Your task to perform on an android device: Open notification settings Image 0: 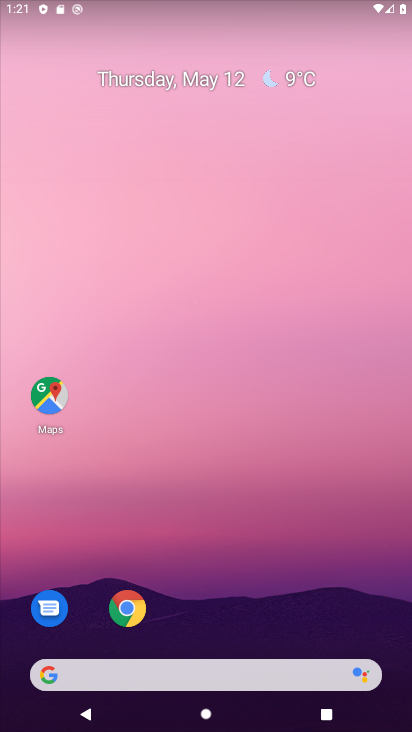
Step 0: drag from (194, 603) to (109, 146)
Your task to perform on an android device: Open notification settings Image 1: 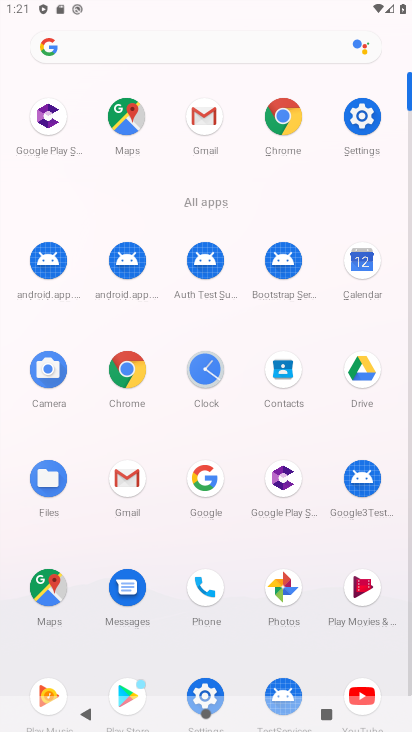
Step 1: click (370, 115)
Your task to perform on an android device: Open notification settings Image 2: 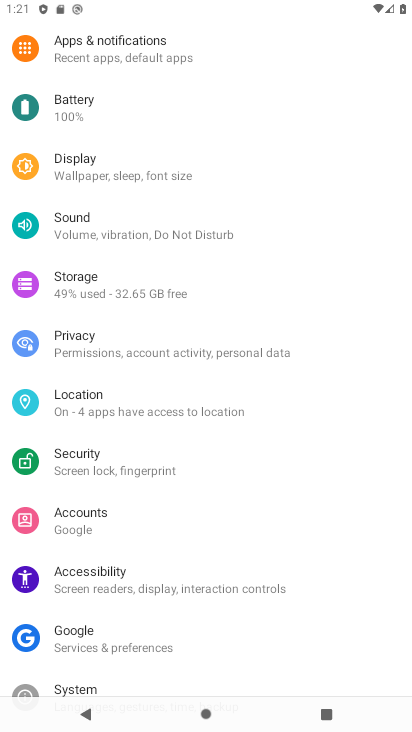
Step 2: click (171, 43)
Your task to perform on an android device: Open notification settings Image 3: 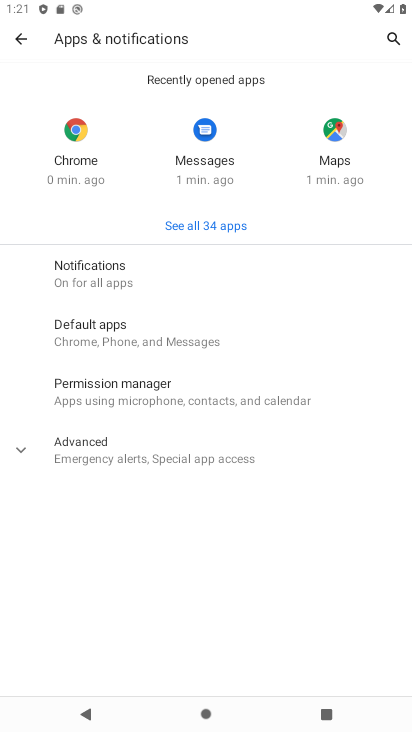
Step 3: click (119, 285)
Your task to perform on an android device: Open notification settings Image 4: 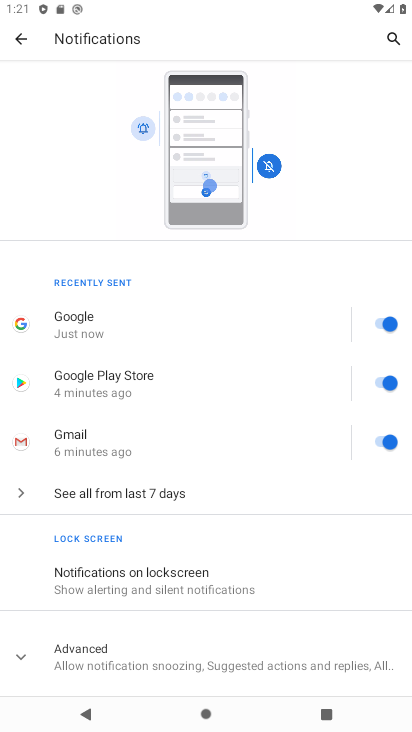
Step 4: click (99, 648)
Your task to perform on an android device: Open notification settings Image 5: 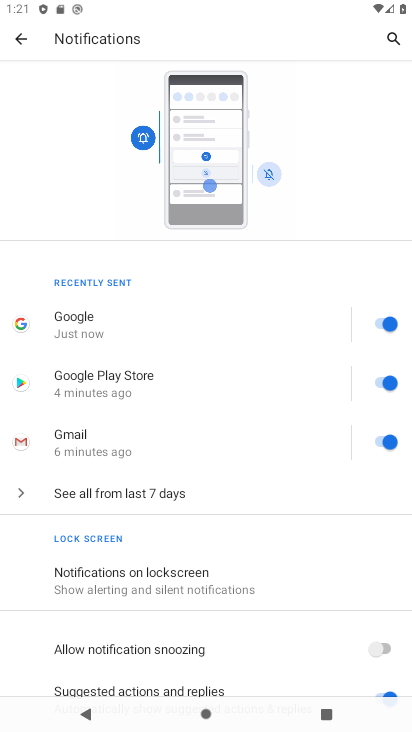
Step 5: task complete